Your task to perform on an android device: change notification settings in the gmail app Image 0: 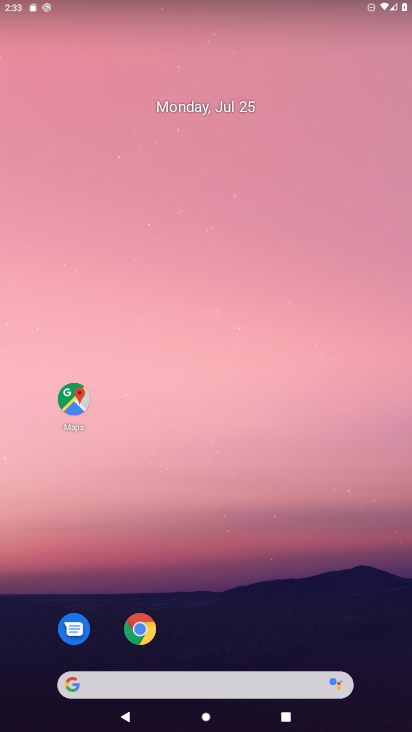
Step 0: drag from (232, 555) to (195, 119)
Your task to perform on an android device: change notification settings in the gmail app Image 1: 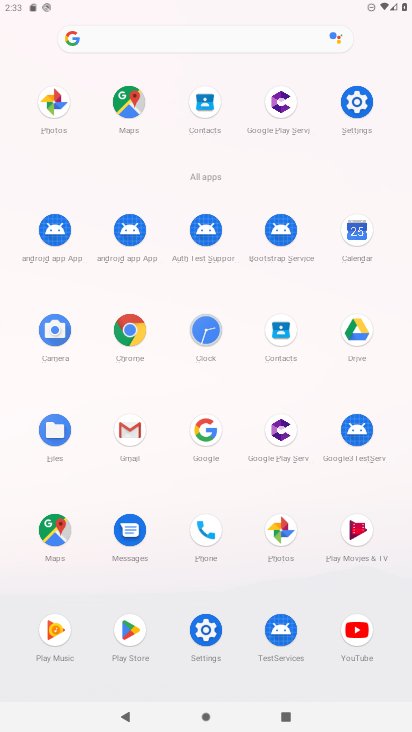
Step 1: click (122, 436)
Your task to perform on an android device: change notification settings in the gmail app Image 2: 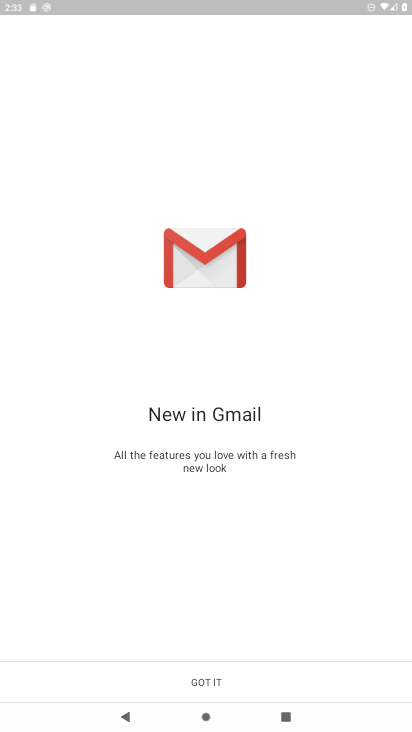
Step 2: click (244, 677)
Your task to perform on an android device: change notification settings in the gmail app Image 3: 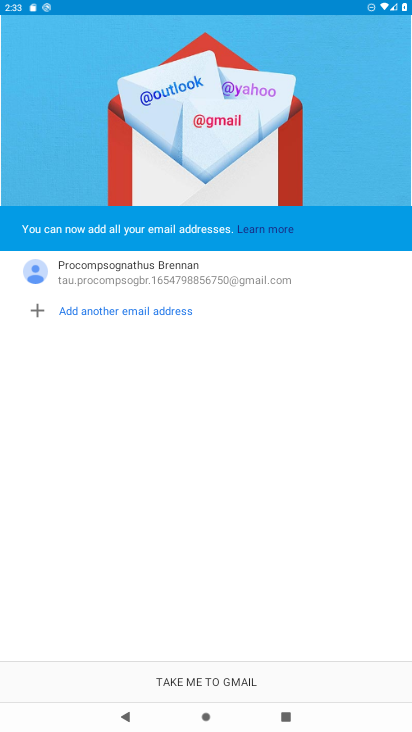
Step 3: press home button
Your task to perform on an android device: change notification settings in the gmail app Image 4: 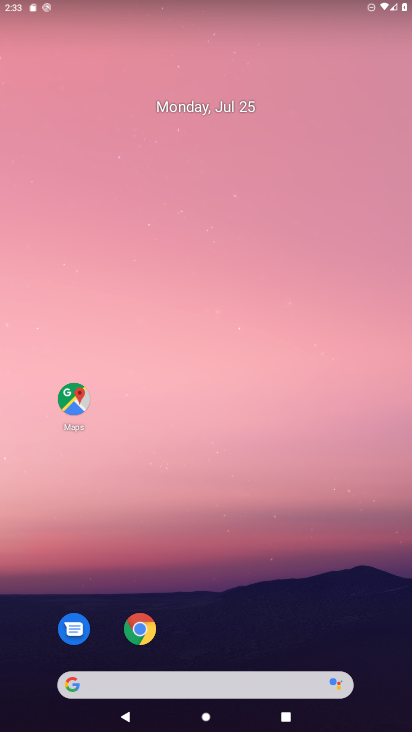
Step 4: drag from (259, 638) to (286, 188)
Your task to perform on an android device: change notification settings in the gmail app Image 5: 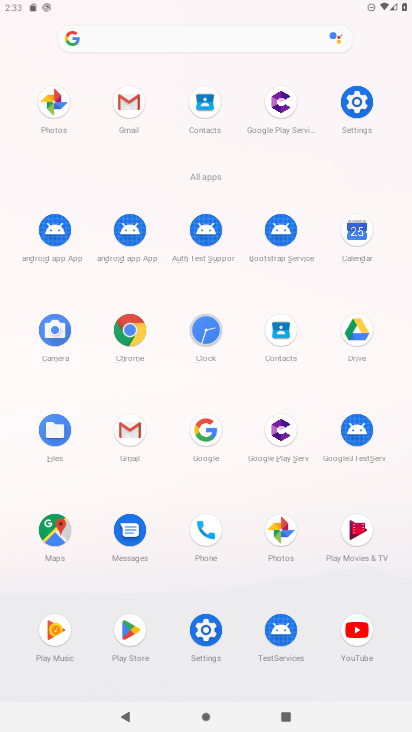
Step 5: click (127, 428)
Your task to perform on an android device: change notification settings in the gmail app Image 6: 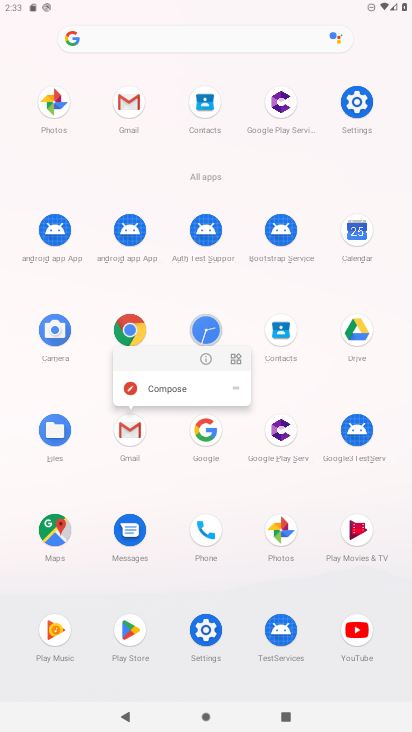
Step 6: click (205, 358)
Your task to perform on an android device: change notification settings in the gmail app Image 7: 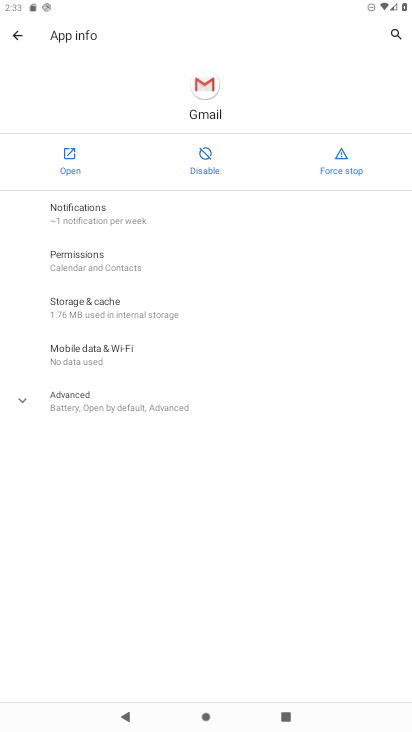
Step 7: click (109, 203)
Your task to perform on an android device: change notification settings in the gmail app Image 8: 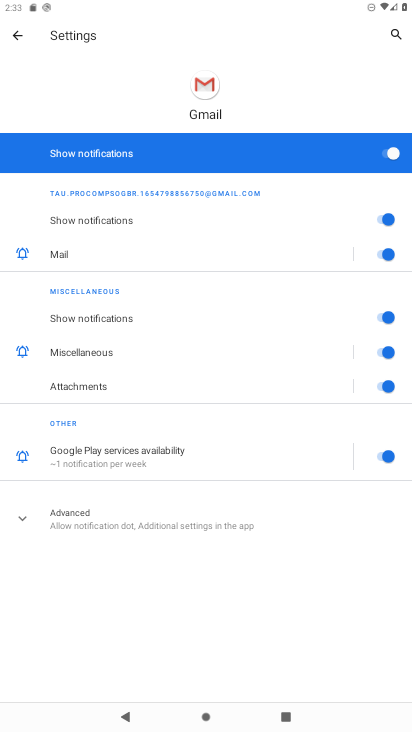
Step 8: click (391, 255)
Your task to perform on an android device: change notification settings in the gmail app Image 9: 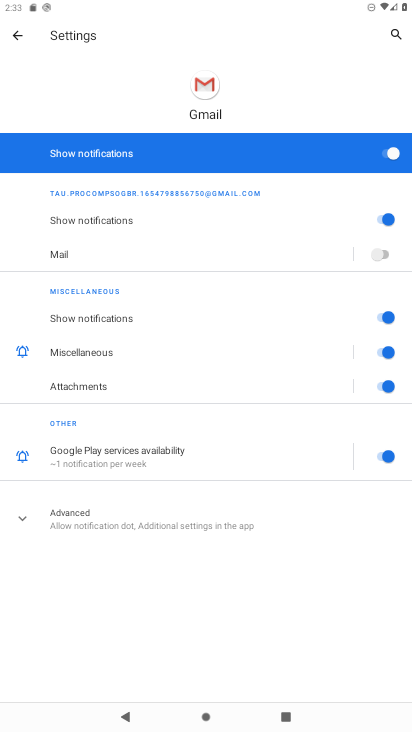
Step 9: task complete